Your task to perform on an android device: uninstall "LiveIn - Share Your Moment" Image 0: 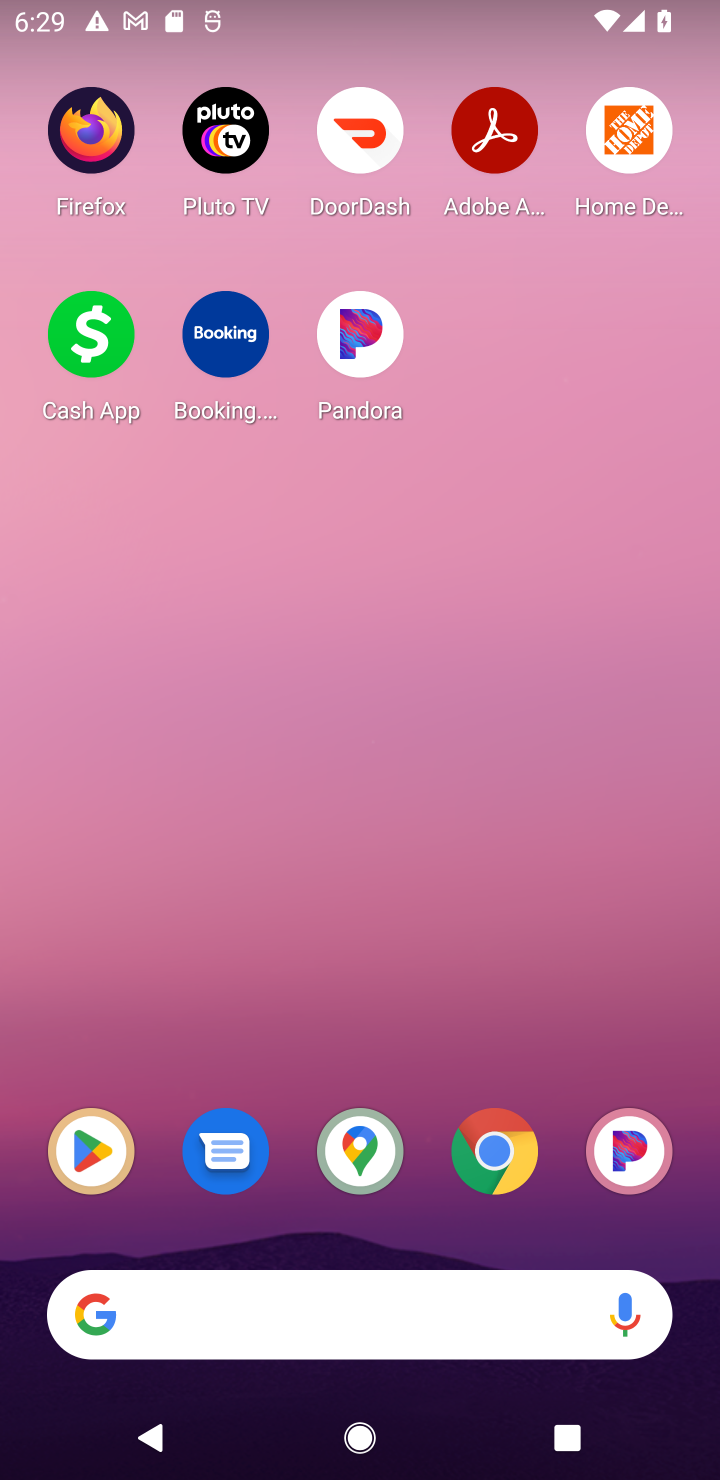
Step 0: drag from (373, 1303) to (491, 39)
Your task to perform on an android device: uninstall "LiveIn - Share Your Moment" Image 1: 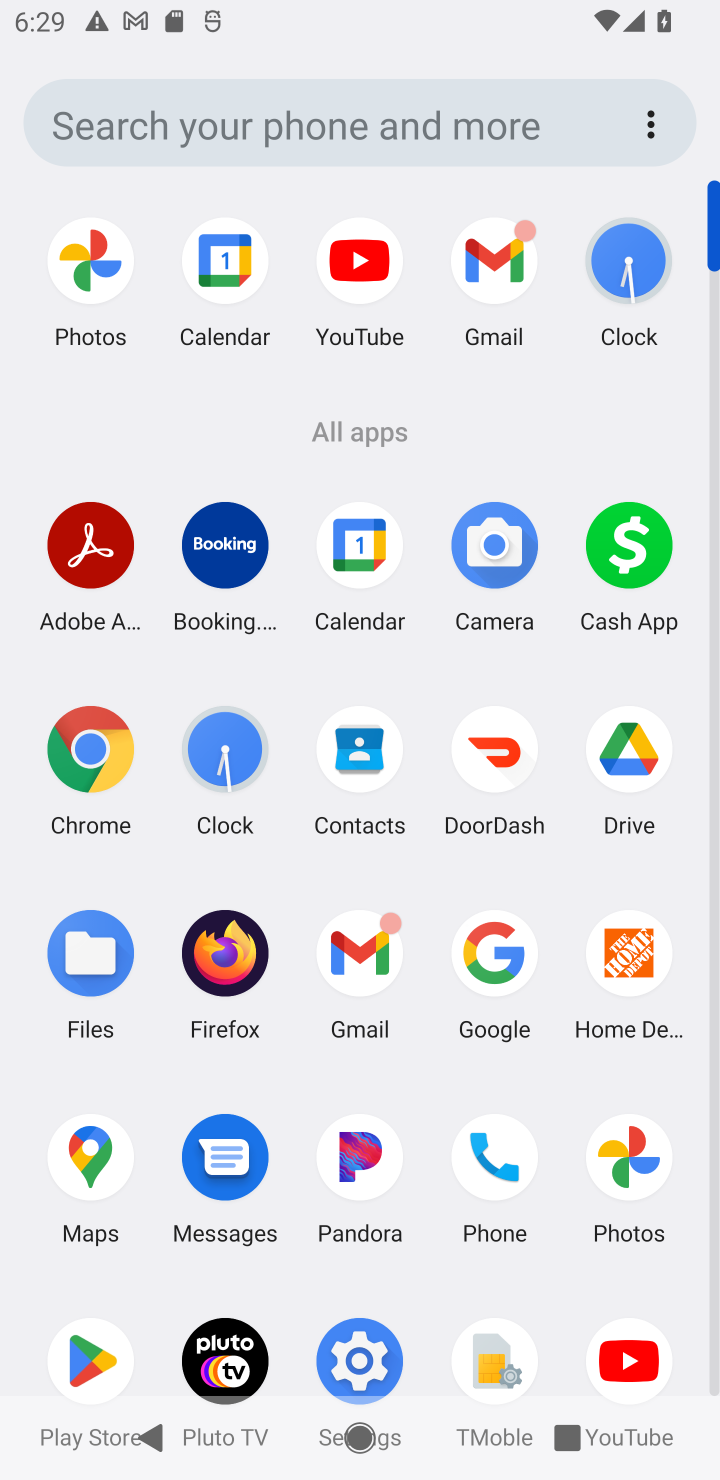
Step 1: click (85, 1351)
Your task to perform on an android device: uninstall "LiveIn - Share Your Moment" Image 2: 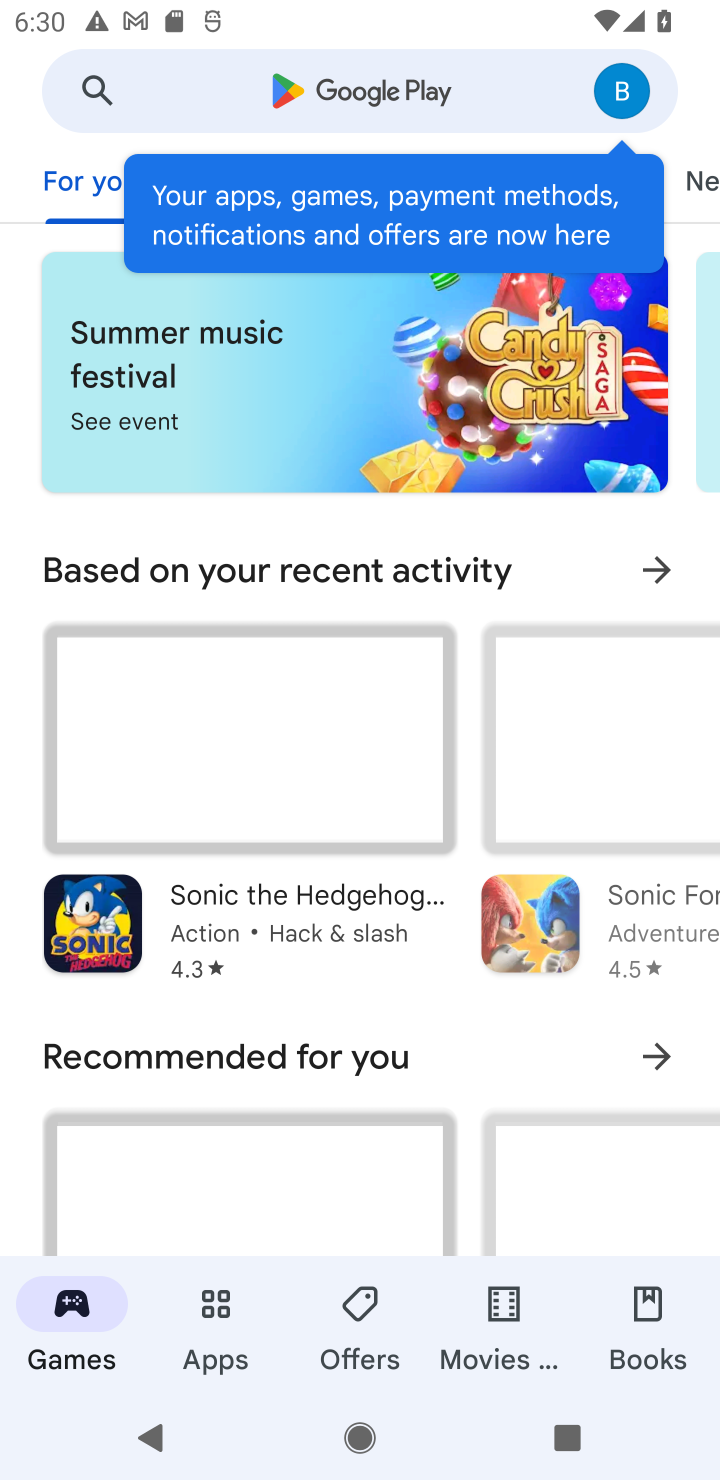
Step 2: click (454, 62)
Your task to perform on an android device: uninstall "LiveIn - Share Your Moment" Image 3: 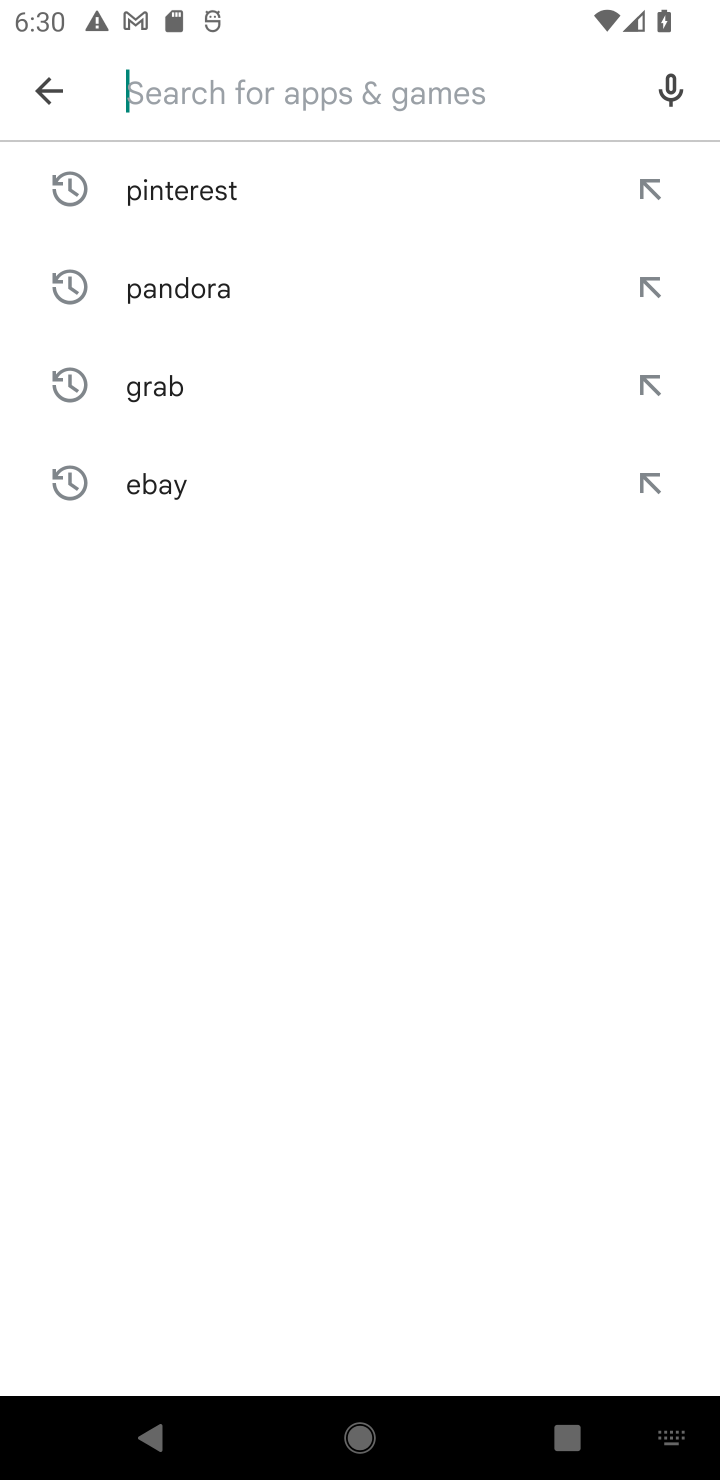
Step 3: type "livein - share your moment"
Your task to perform on an android device: uninstall "LiveIn - Share Your Moment" Image 4: 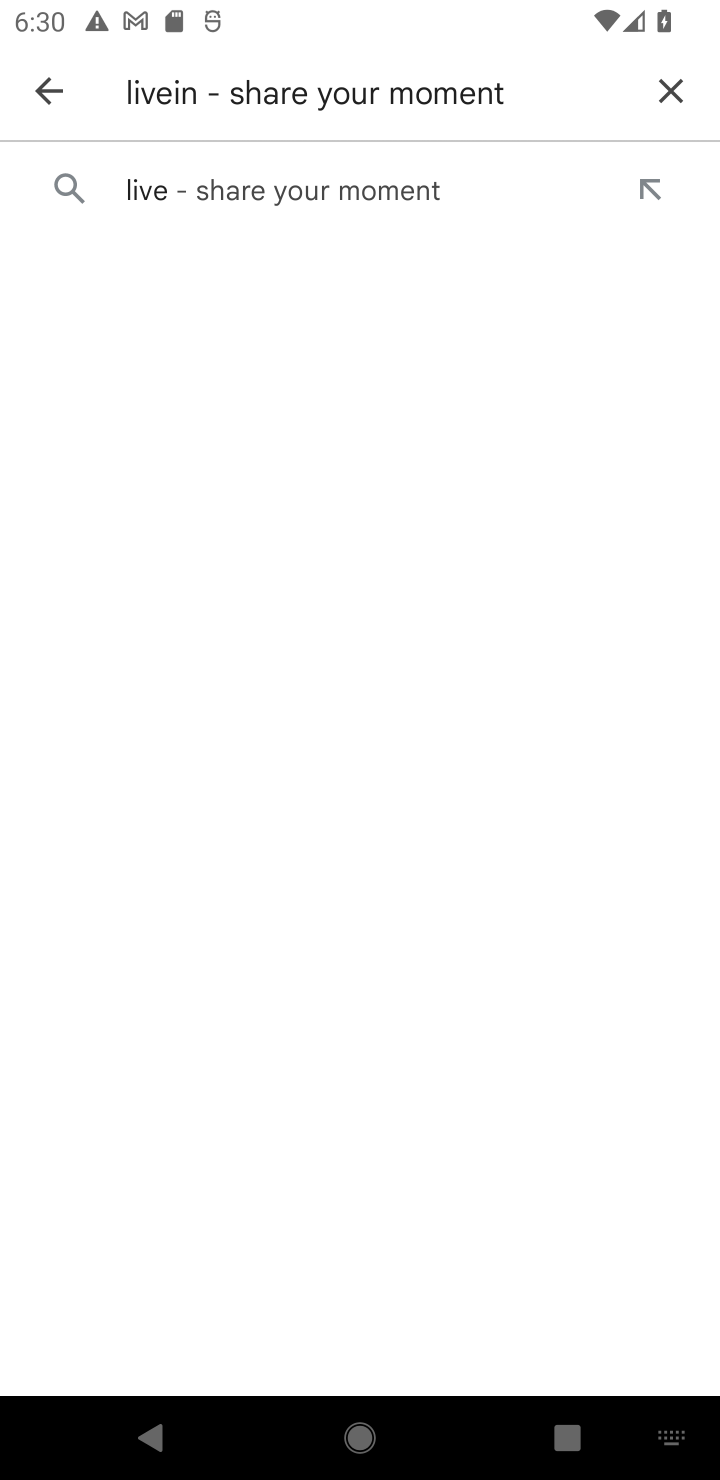
Step 4: click (379, 188)
Your task to perform on an android device: uninstall "LiveIn - Share Your Moment" Image 5: 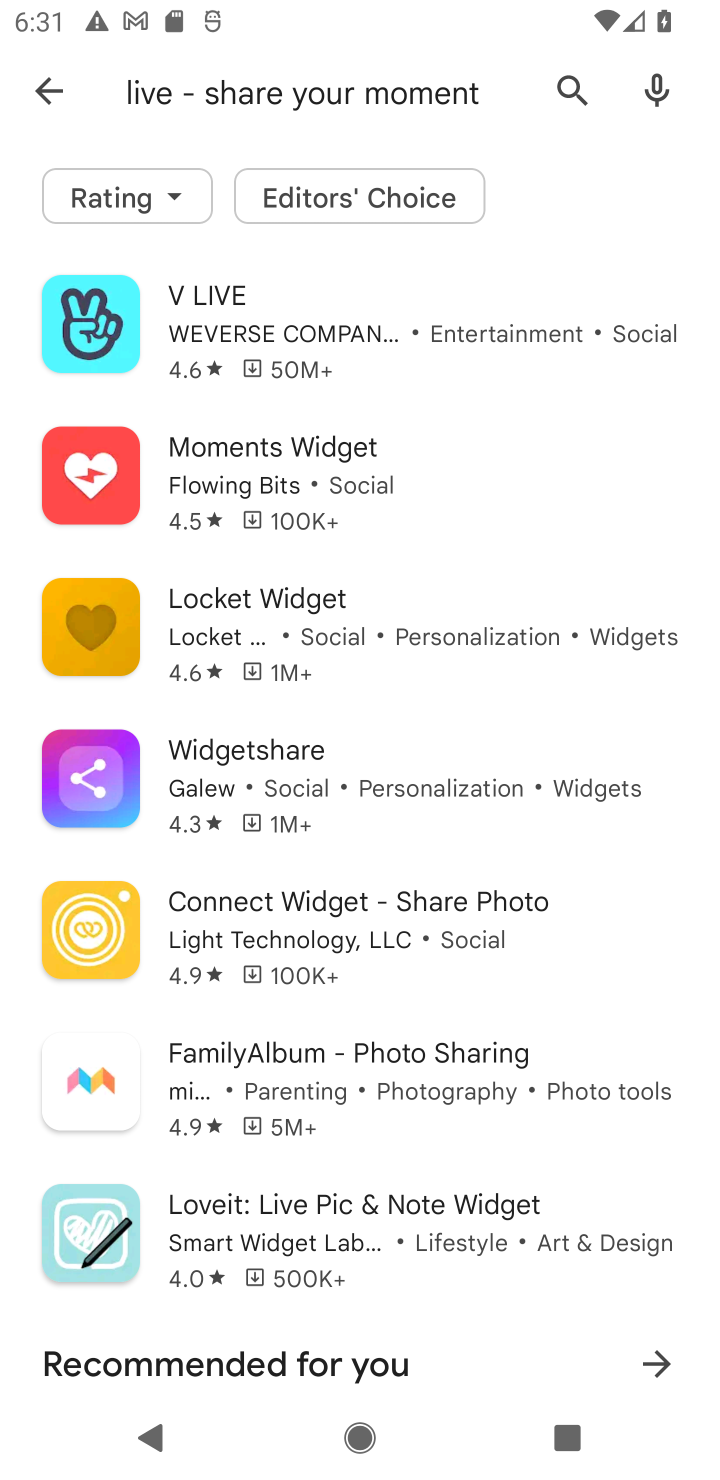
Step 5: task complete